Your task to perform on an android device: find snoozed emails in the gmail app Image 0: 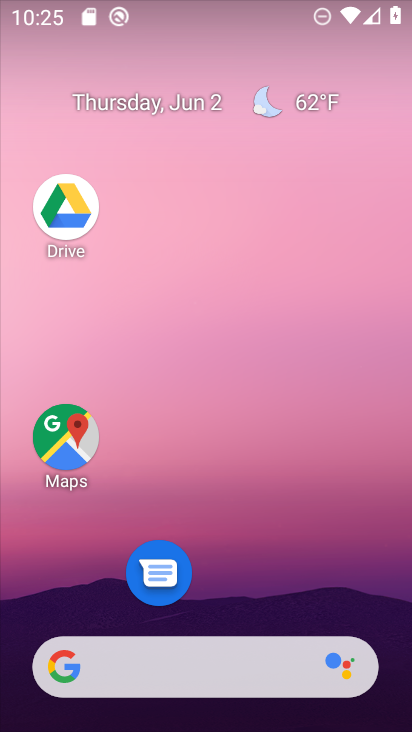
Step 0: drag from (241, 624) to (158, 23)
Your task to perform on an android device: find snoozed emails in the gmail app Image 1: 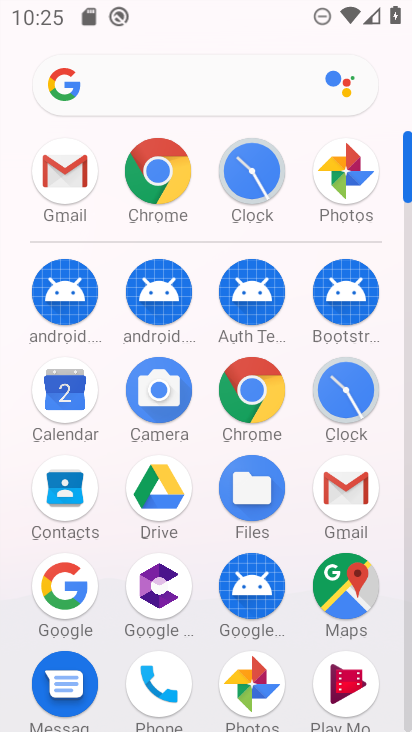
Step 1: click (342, 481)
Your task to perform on an android device: find snoozed emails in the gmail app Image 2: 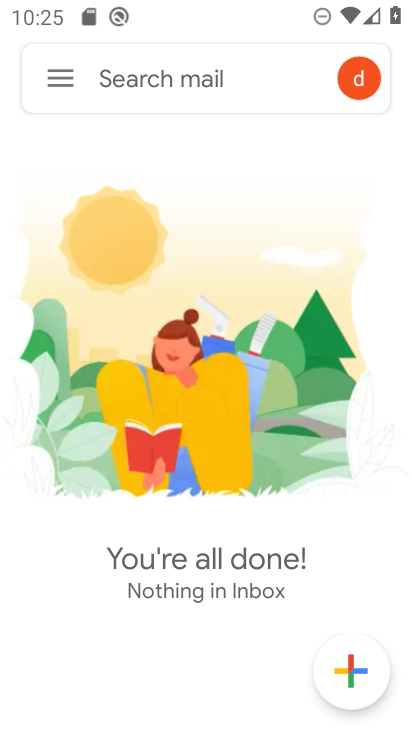
Step 2: click (69, 71)
Your task to perform on an android device: find snoozed emails in the gmail app Image 3: 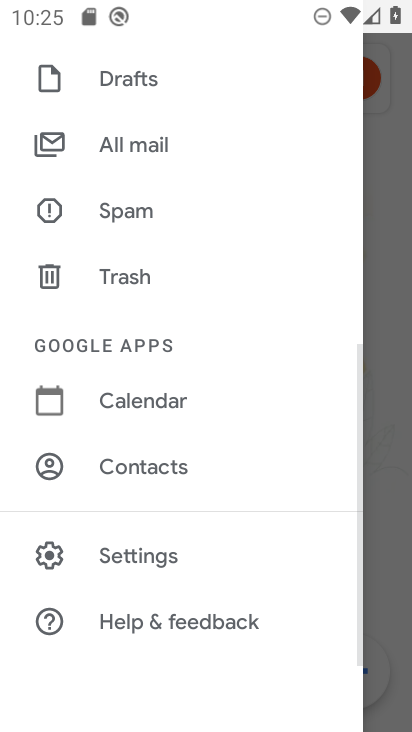
Step 3: drag from (129, 175) to (113, 670)
Your task to perform on an android device: find snoozed emails in the gmail app Image 4: 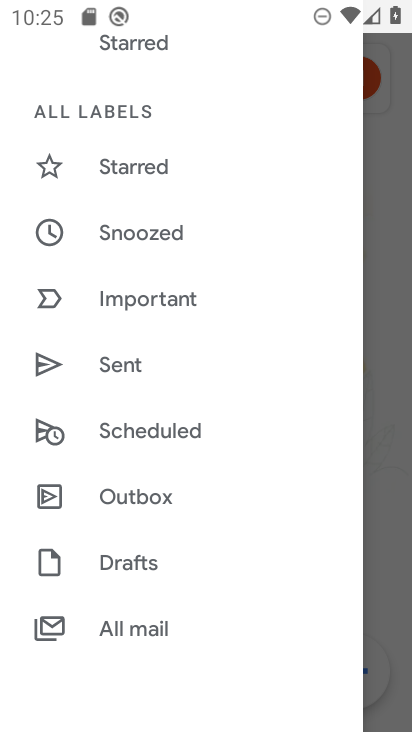
Step 4: click (140, 237)
Your task to perform on an android device: find snoozed emails in the gmail app Image 5: 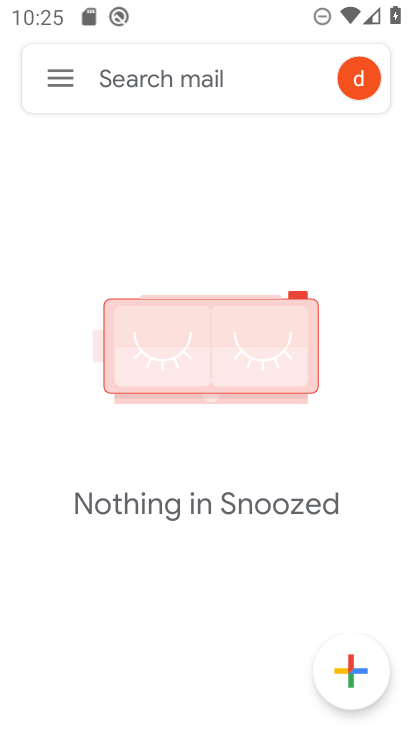
Step 5: task complete